Your task to perform on an android device: Go to sound settings Image 0: 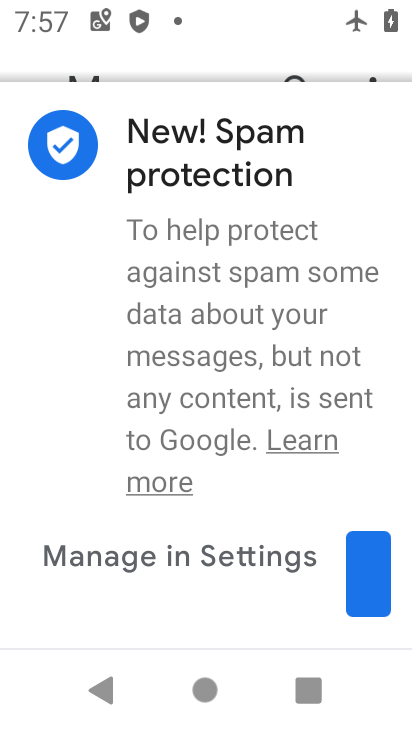
Step 0: press home button
Your task to perform on an android device: Go to sound settings Image 1: 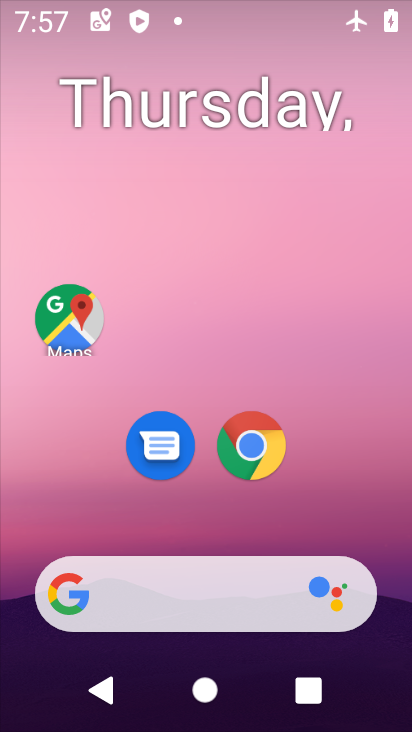
Step 1: click (388, 633)
Your task to perform on an android device: Go to sound settings Image 2: 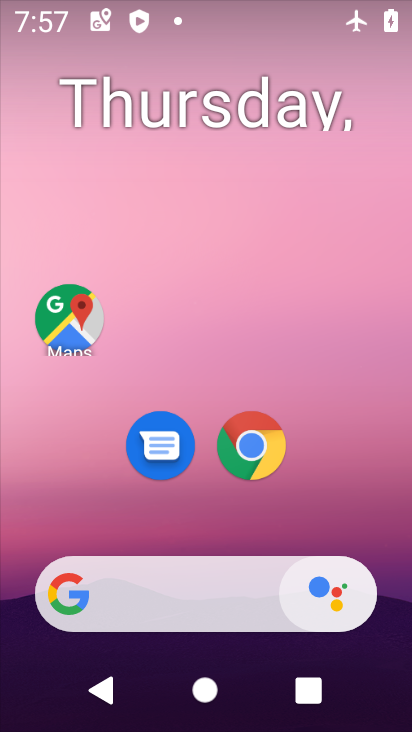
Step 2: drag from (381, 227) to (337, 83)
Your task to perform on an android device: Go to sound settings Image 3: 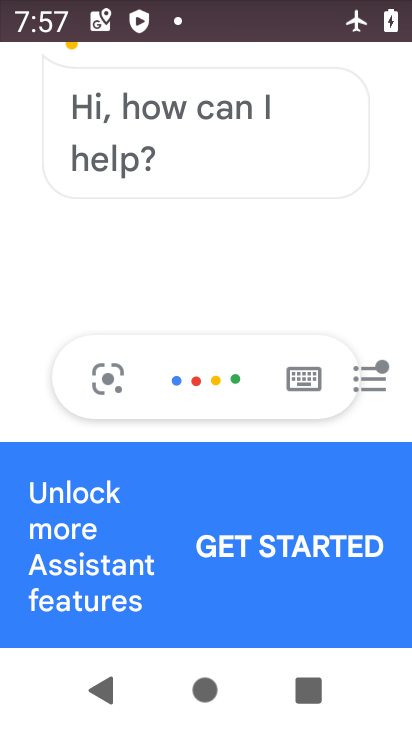
Step 3: drag from (316, 504) to (366, 167)
Your task to perform on an android device: Go to sound settings Image 4: 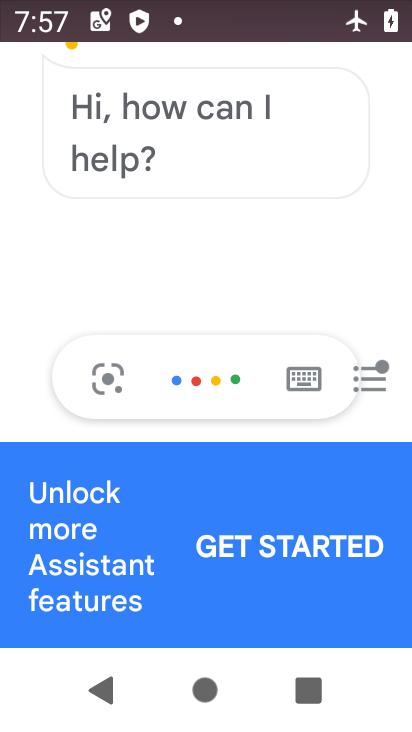
Step 4: press home button
Your task to perform on an android device: Go to sound settings Image 5: 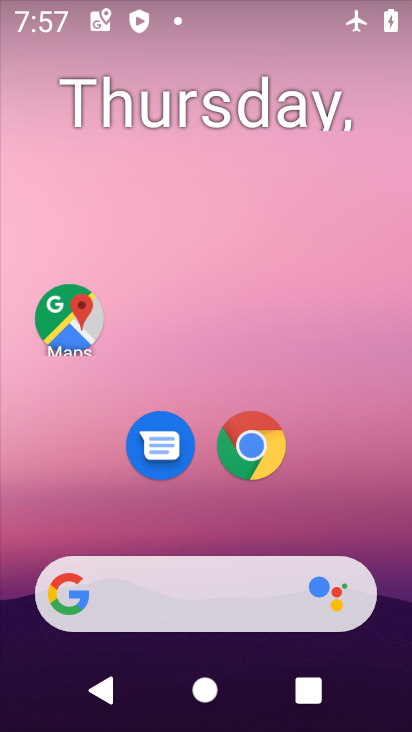
Step 5: drag from (315, 520) to (307, 82)
Your task to perform on an android device: Go to sound settings Image 6: 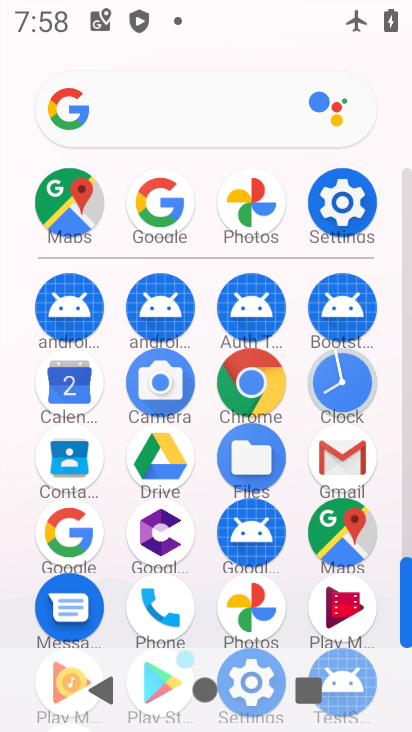
Step 6: click (359, 205)
Your task to perform on an android device: Go to sound settings Image 7: 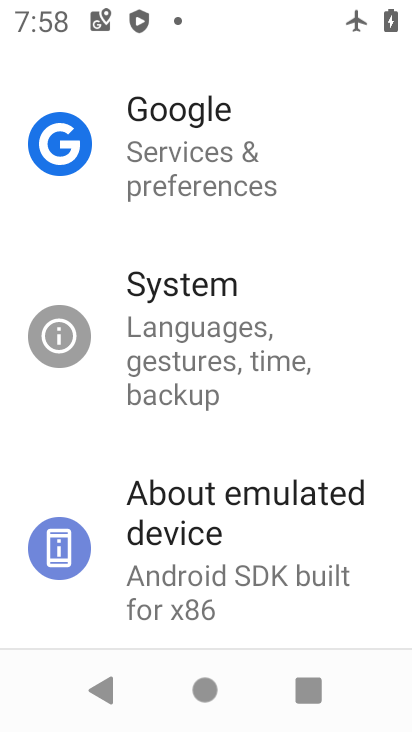
Step 7: drag from (225, 155) to (283, 603)
Your task to perform on an android device: Go to sound settings Image 8: 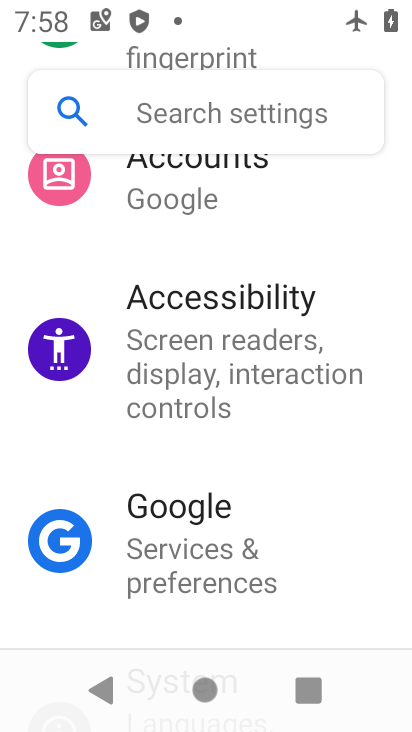
Step 8: drag from (186, 223) to (243, 630)
Your task to perform on an android device: Go to sound settings Image 9: 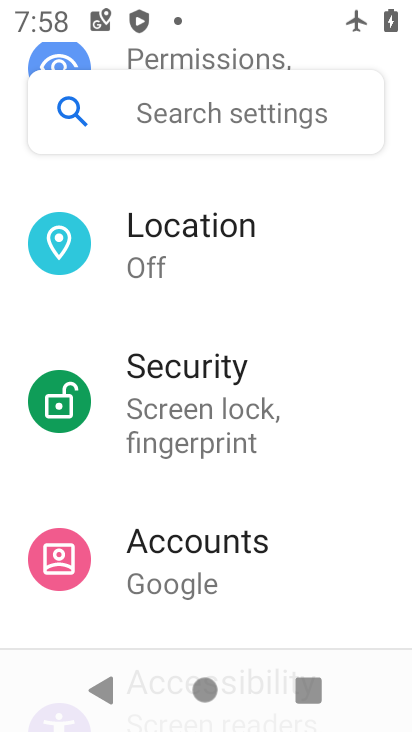
Step 9: drag from (165, 211) to (193, 609)
Your task to perform on an android device: Go to sound settings Image 10: 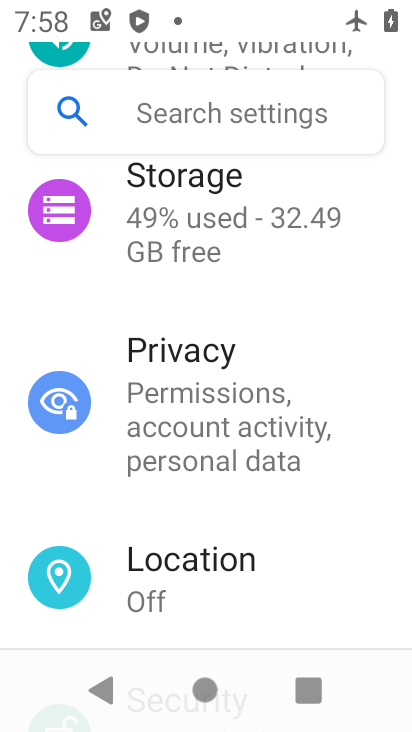
Step 10: drag from (146, 231) to (203, 616)
Your task to perform on an android device: Go to sound settings Image 11: 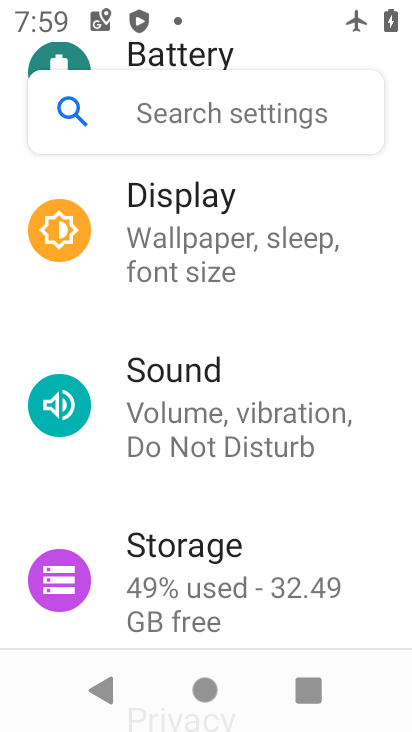
Step 11: click (184, 416)
Your task to perform on an android device: Go to sound settings Image 12: 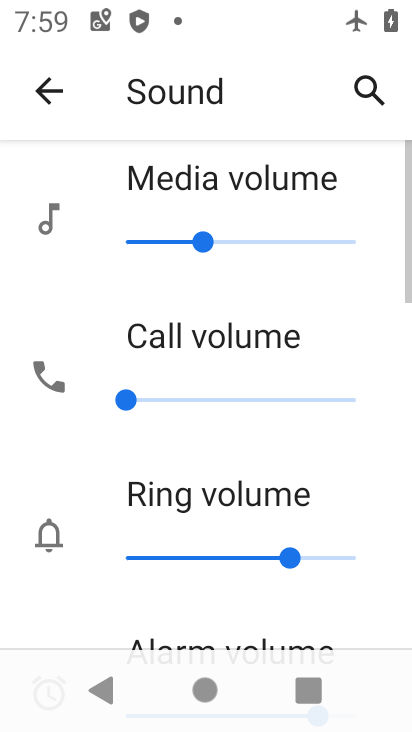
Step 12: task complete